Your task to perform on an android device: What's the weather today? Image 0: 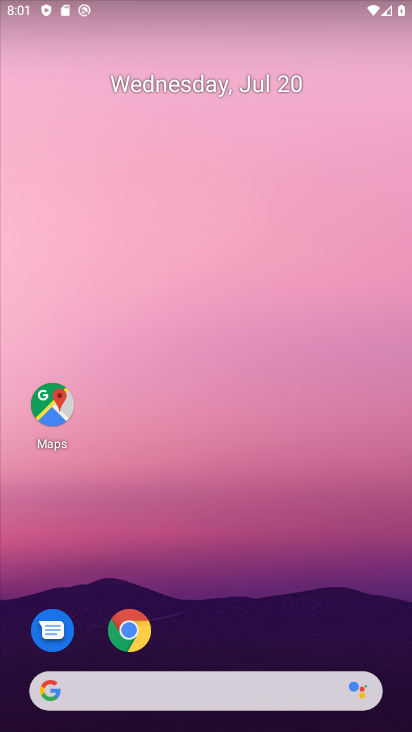
Step 0: drag from (391, 710) to (332, 177)
Your task to perform on an android device: What's the weather today? Image 1: 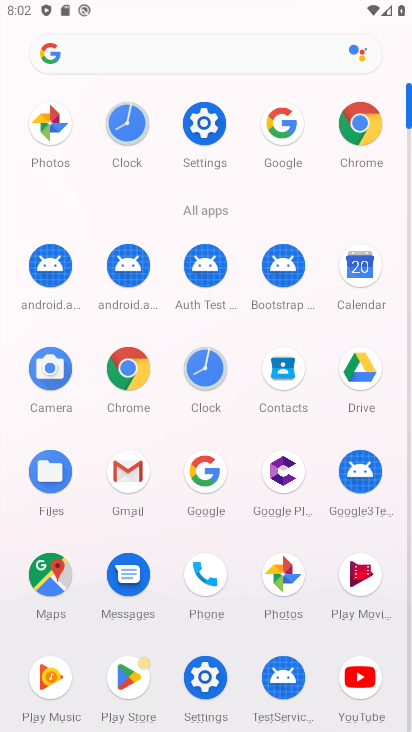
Step 1: click (203, 475)
Your task to perform on an android device: What's the weather today? Image 2: 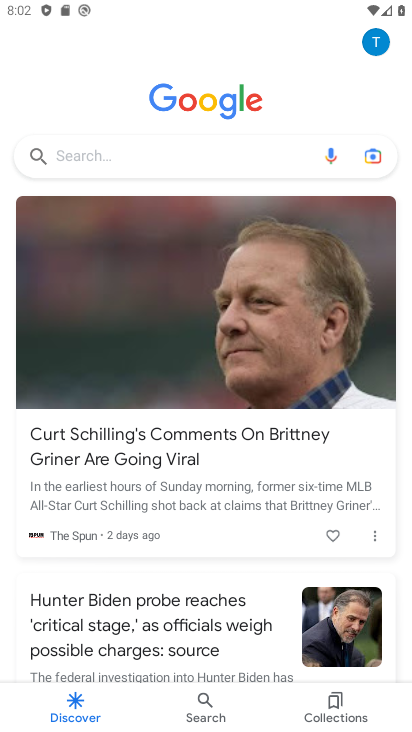
Step 2: task complete